Your task to perform on an android device: snooze an email in the gmail app Image 0: 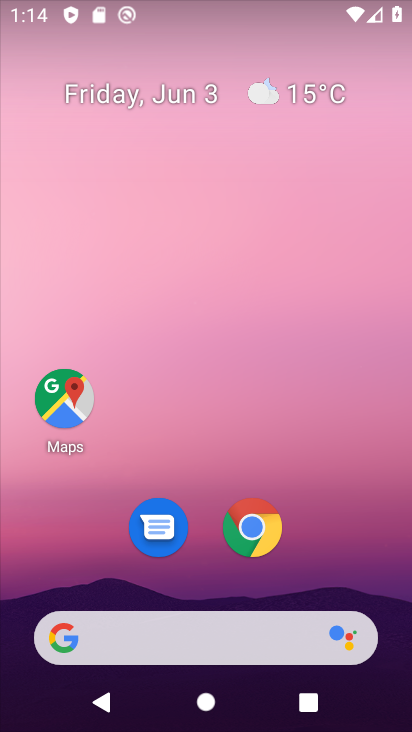
Step 0: drag from (347, 591) to (313, 59)
Your task to perform on an android device: snooze an email in the gmail app Image 1: 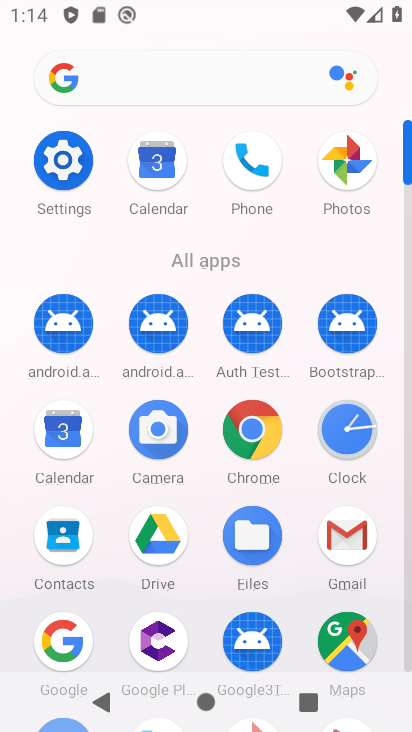
Step 1: click (353, 530)
Your task to perform on an android device: snooze an email in the gmail app Image 2: 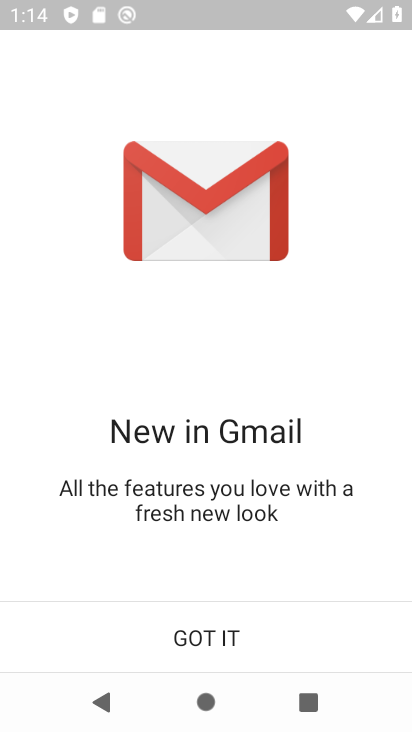
Step 2: click (260, 629)
Your task to perform on an android device: snooze an email in the gmail app Image 3: 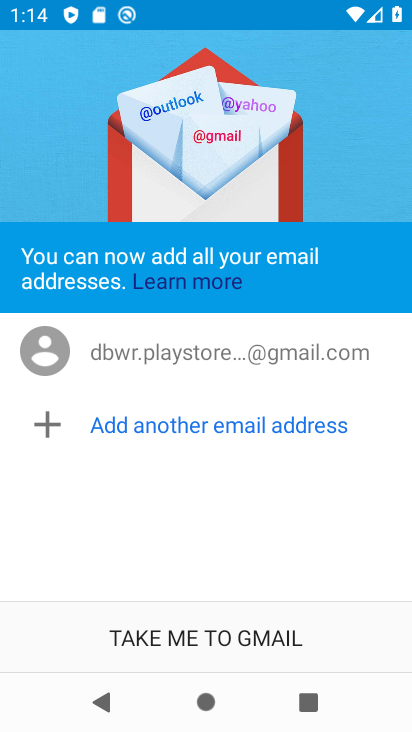
Step 3: click (260, 629)
Your task to perform on an android device: snooze an email in the gmail app Image 4: 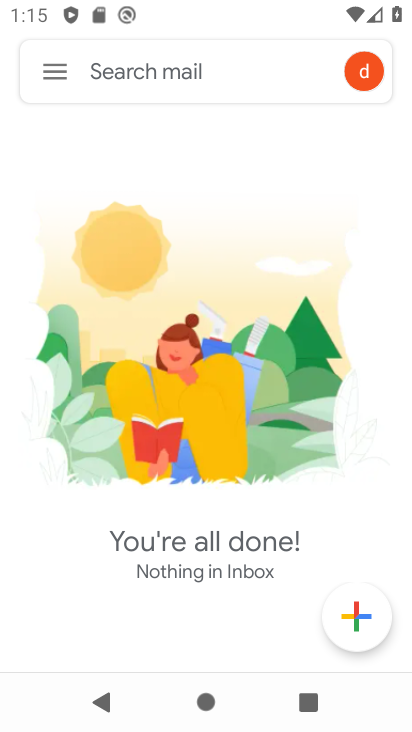
Step 4: click (62, 81)
Your task to perform on an android device: snooze an email in the gmail app Image 5: 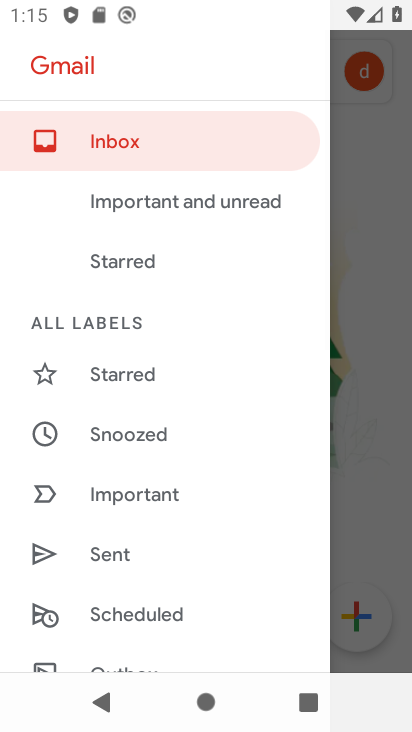
Step 5: drag from (186, 490) to (180, 201)
Your task to perform on an android device: snooze an email in the gmail app Image 6: 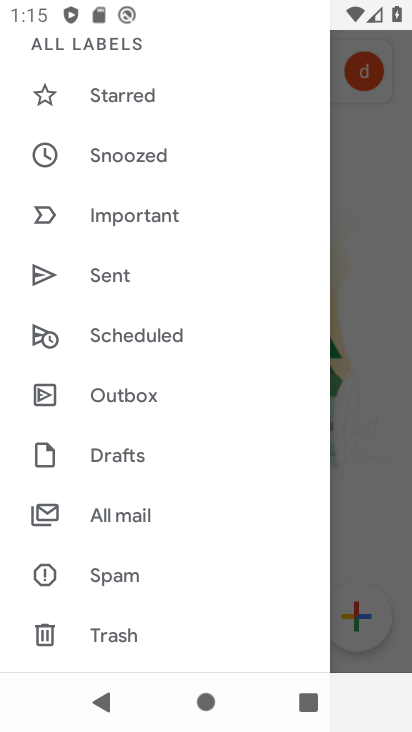
Step 6: click (176, 509)
Your task to perform on an android device: snooze an email in the gmail app Image 7: 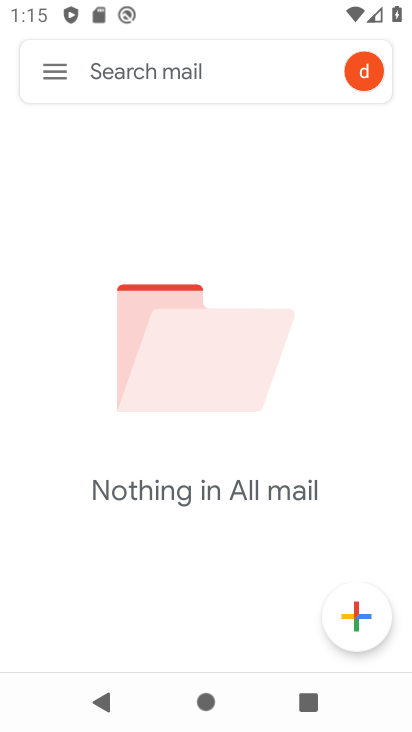
Step 7: task complete